Your task to perform on an android device: Go to Reddit.com Image 0: 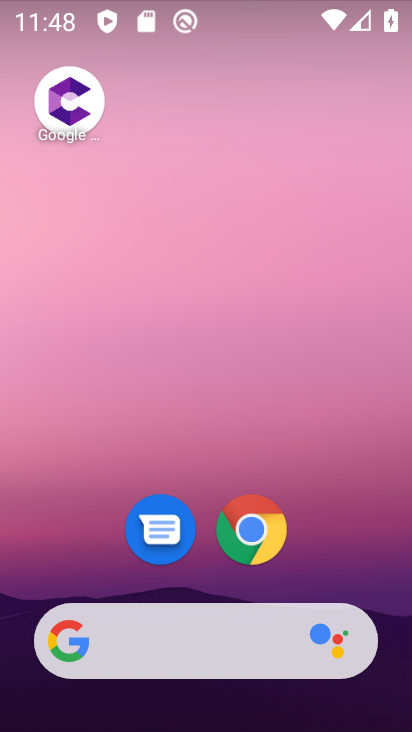
Step 0: click (167, 634)
Your task to perform on an android device: Go to Reddit.com Image 1: 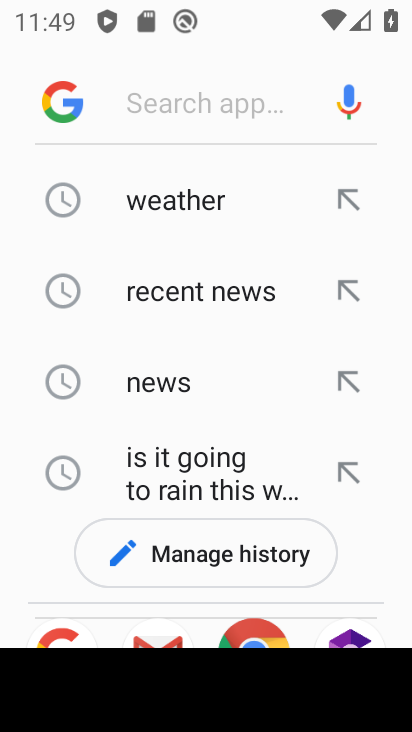
Step 1: type "Reddit.com"
Your task to perform on an android device: Go to Reddit.com Image 2: 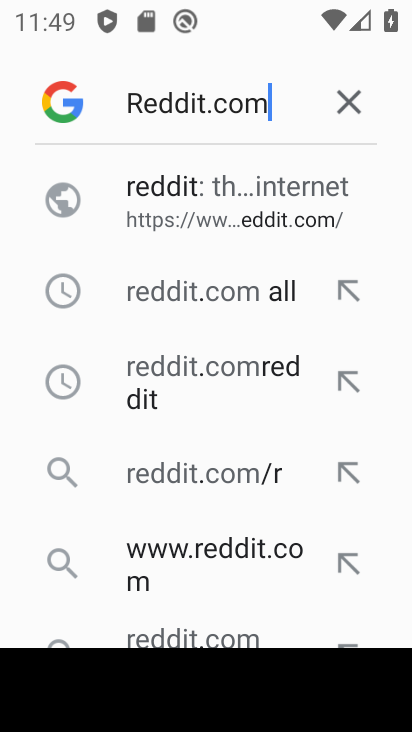
Step 2: click (175, 198)
Your task to perform on an android device: Go to Reddit.com Image 3: 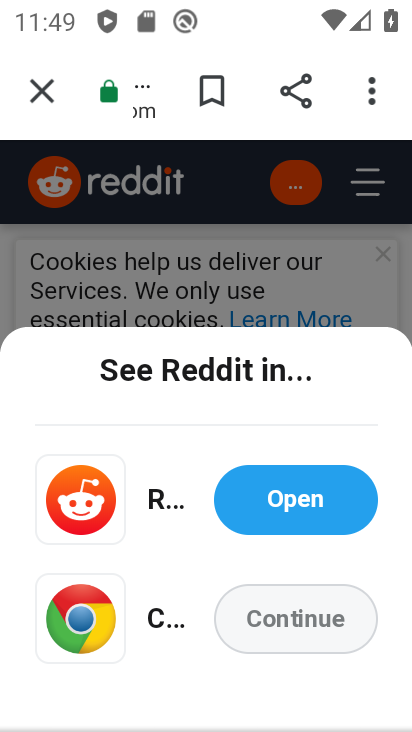
Step 3: click (298, 614)
Your task to perform on an android device: Go to Reddit.com Image 4: 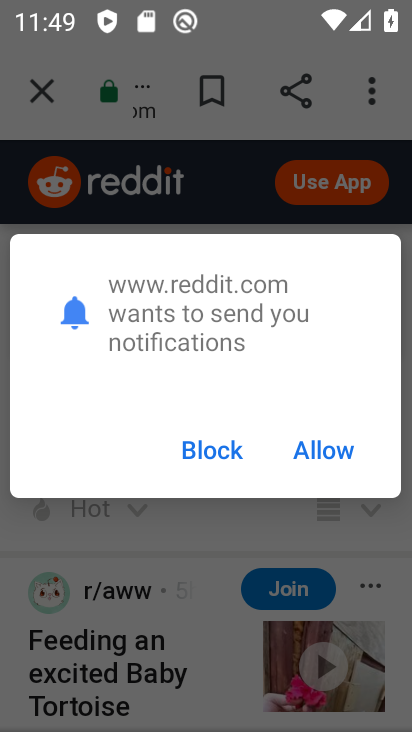
Step 4: click (323, 468)
Your task to perform on an android device: Go to Reddit.com Image 5: 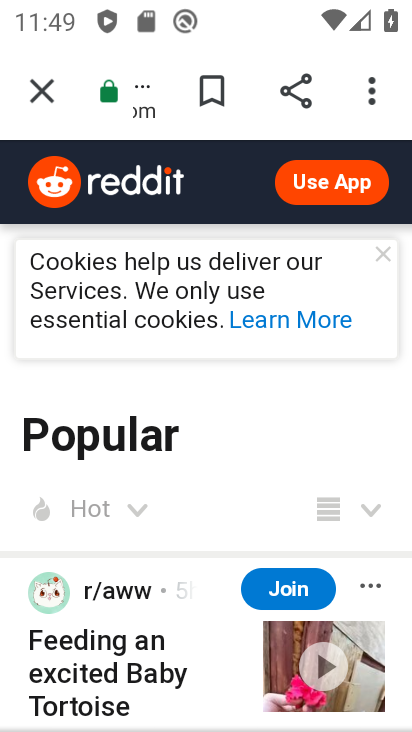
Step 5: task complete